Your task to perform on an android device: delete the emails in spam in the gmail app Image 0: 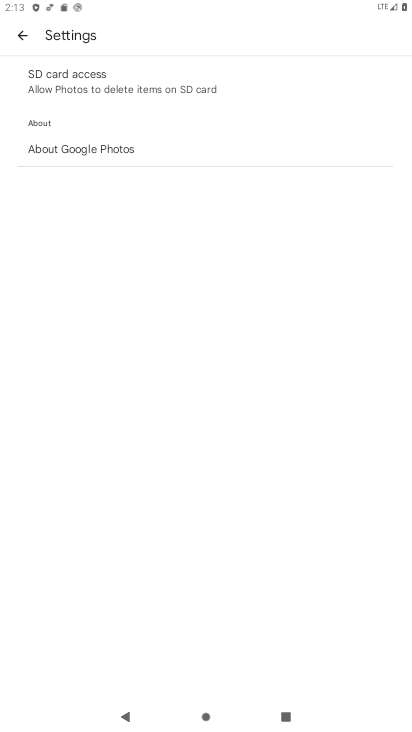
Step 0: click (22, 40)
Your task to perform on an android device: delete the emails in spam in the gmail app Image 1: 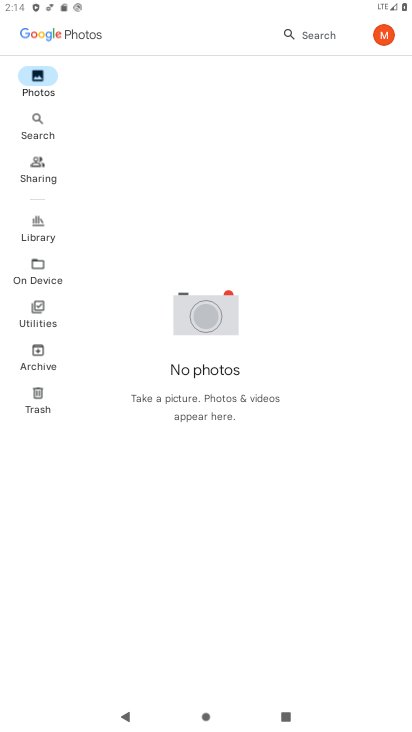
Step 1: task complete